Your task to perform on an android device: Open notification settings Image 0: 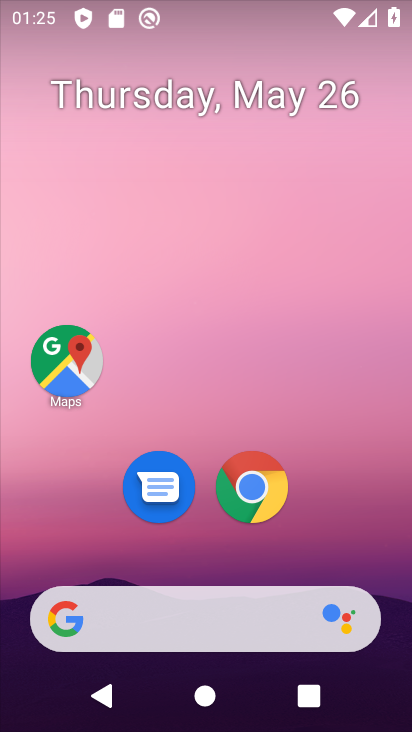
Step 0: drag from (176, 621) to (161, 38)
Your task to perform on an android device: Open notification settings Image 1: 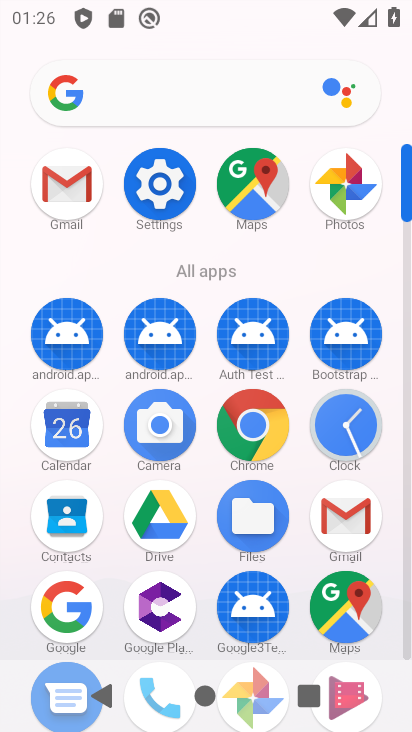
Step 1: click (170, 201)
Your task to perform on an android device: Open notification settings Image 2: 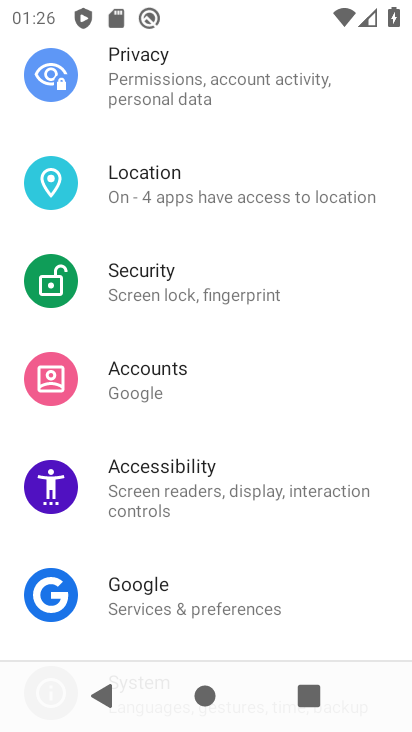
Step 2: drag from (206, 143) to (215, 579)
Your task to perform on an android device: Open notification settings Image 3: 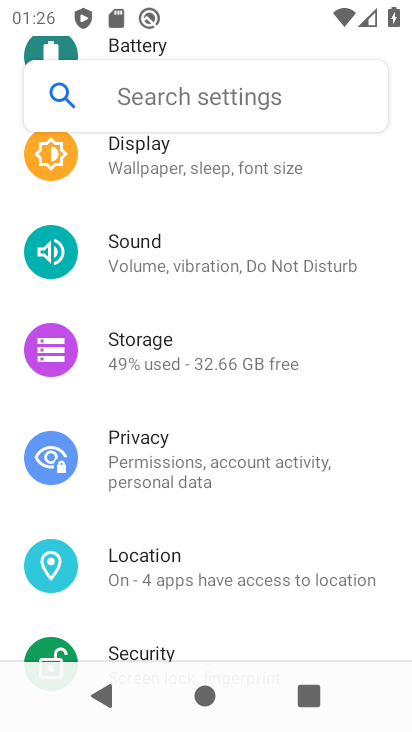
Step 3: drag from (209, 149) to (198, 673)
Your task to perform on an android device: Open notification settings Image 4: 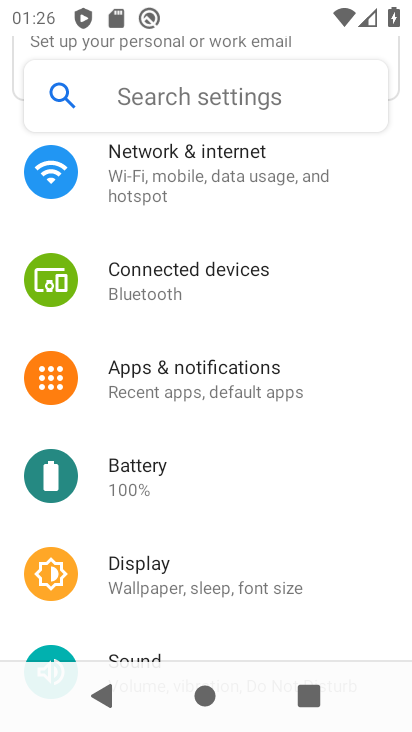
Step 4: click (188, 368)
Your task to perform on an android device: Open notification settings Image 5: 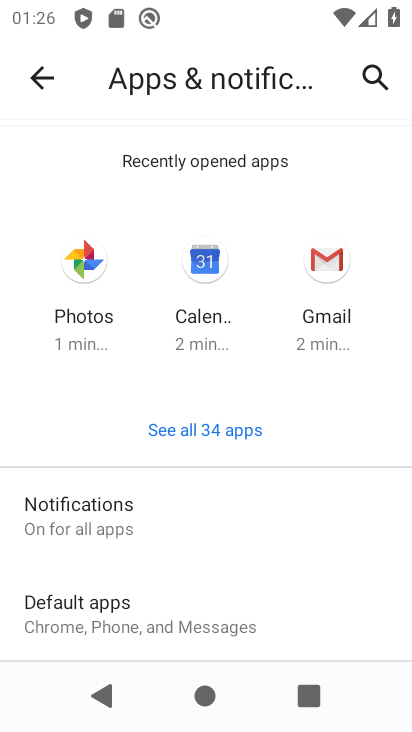
Step 5: task complete